Your task to perform on an android device: turn on wifi Image 0: 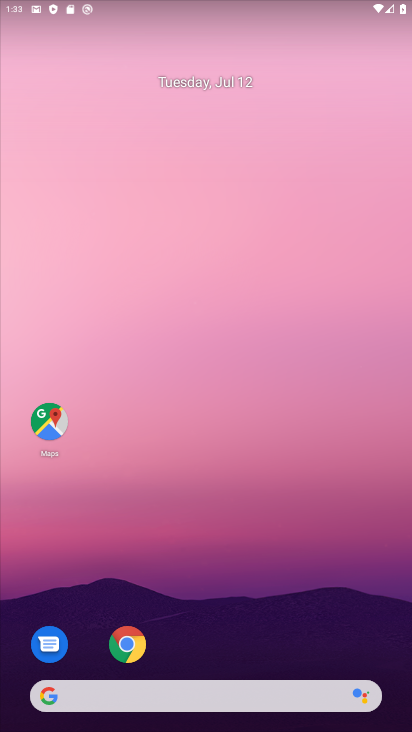
Step 0: drag from (232, 621) to (234, 98)
Your task to perform on an android device: turn on wifi Image 1: 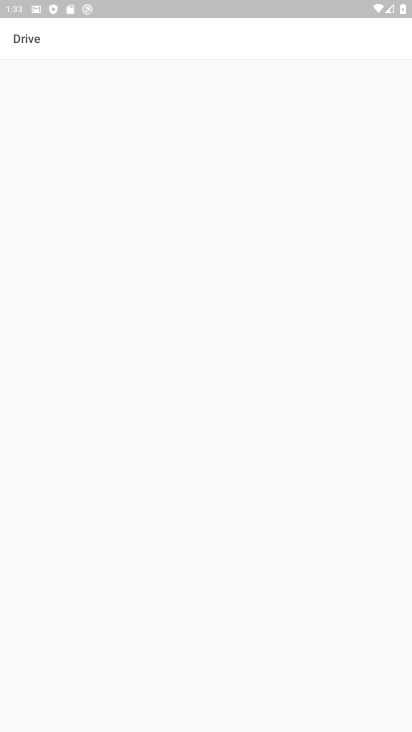
Step 1: press back button
Your task to perform on an android device: turn on wifi Image 2: 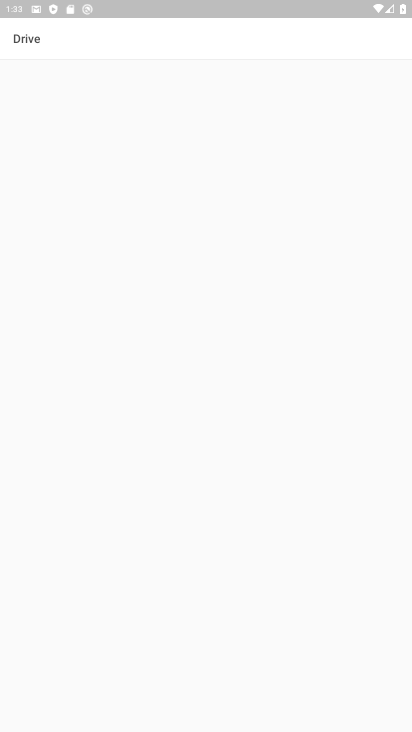
Step 2: click (104, 449)
Your task to perform on an android device: turn on wifi Image 3: 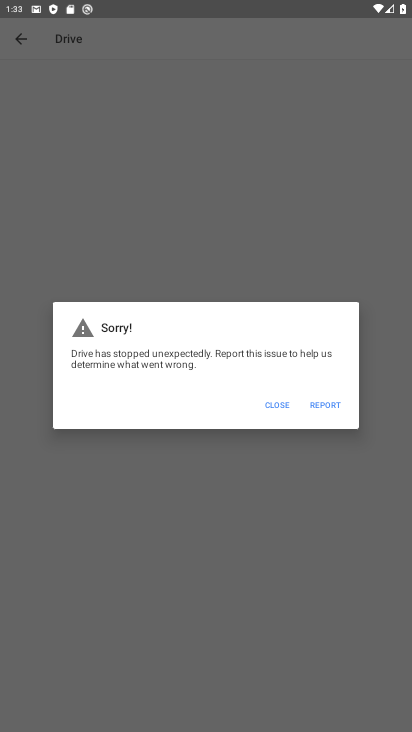
Step 3: press back button
Your task to perform on an android device: turn on wifi Image 4: 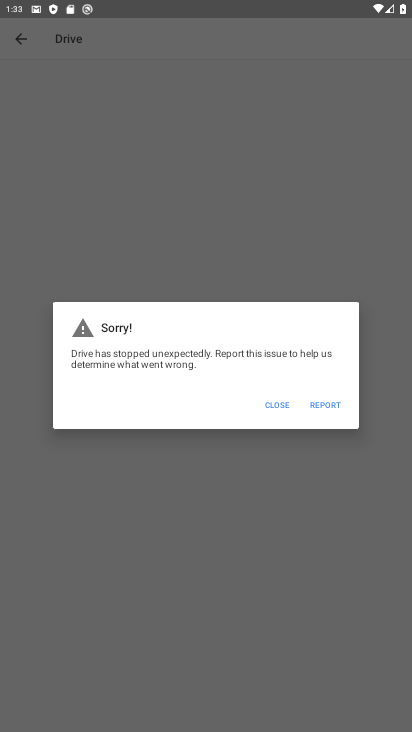
Step 4: press back button
Your task to perform on an android device: turn on wifi Image 5: 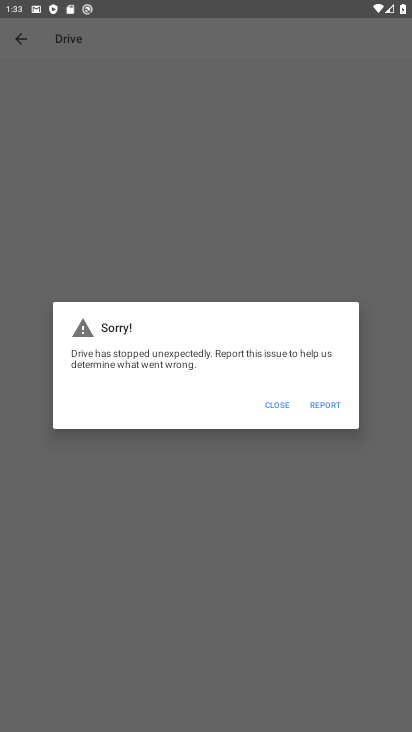
Step 5: click (285, 400)
Your task to perform on an android device: turn on wifi Image 6: 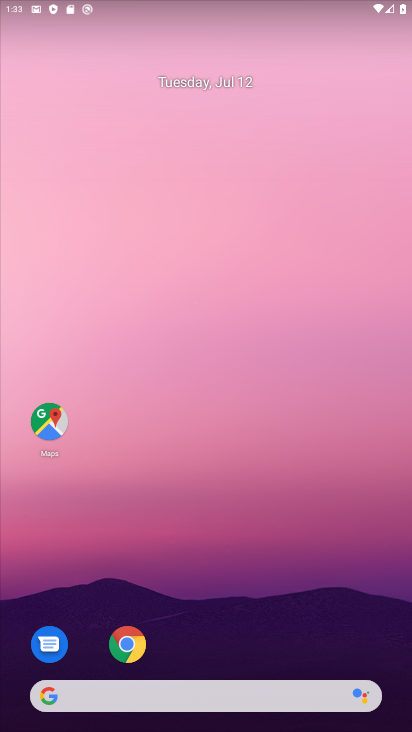
Step 6: task complete